Your task to perform on an android device: change the clock style Image 0: 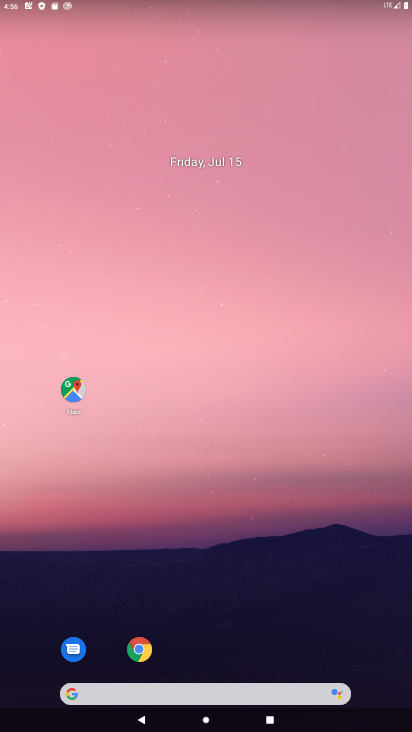
Step 0: drag from (259, 598) to (170, 147)
Your task to perform on an android device: change the clock style Image 1: 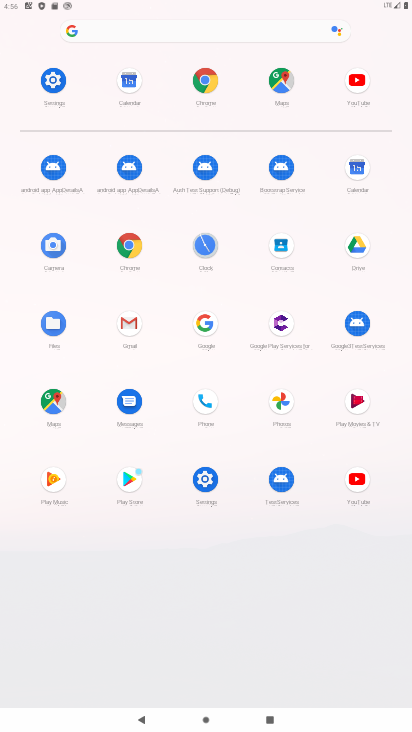
Step 1: click (202, 242)
Your task to perform on an android device: change the clock style Image 2: 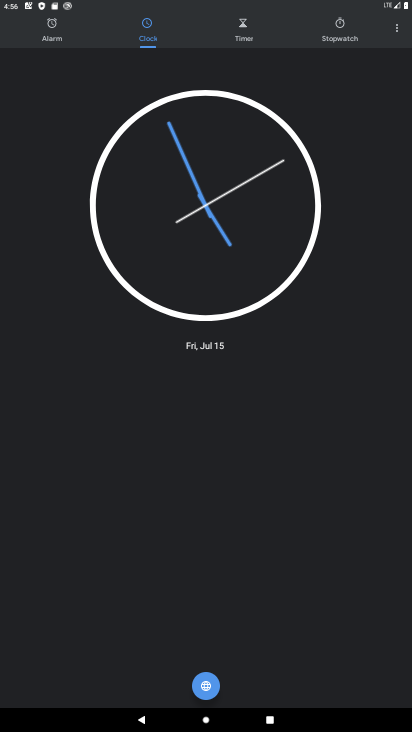
Step 2: click (391, 25)
Your task to perform on an android device: change the clock style Image 3: 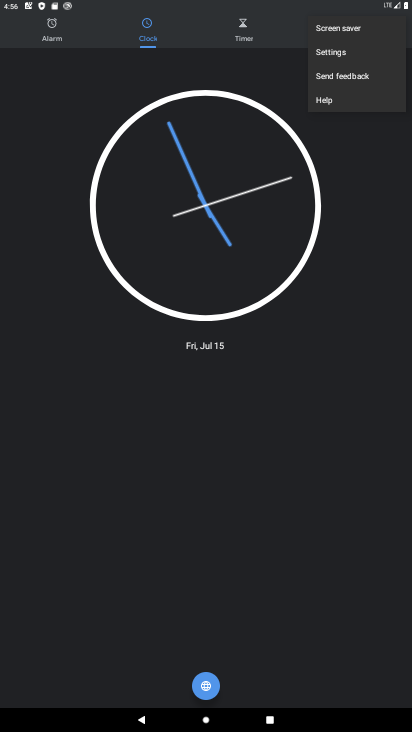
Step 3: click (340, 61)
Your task to perform on an android device: change the clock style Image 4: 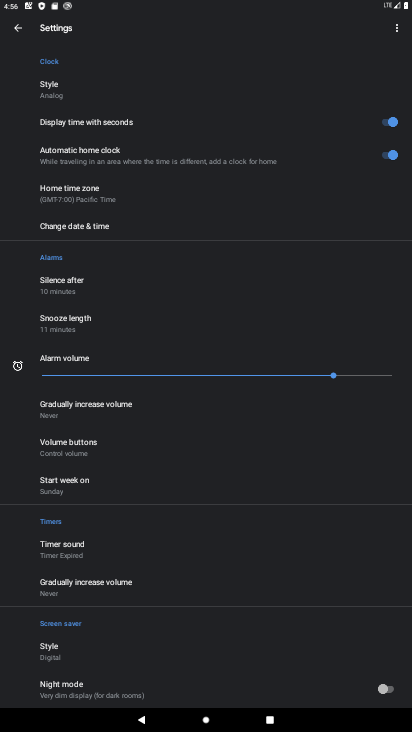
Step 4: click (64, 94)
Your task to perform on an android device: change the clock style Image 5: 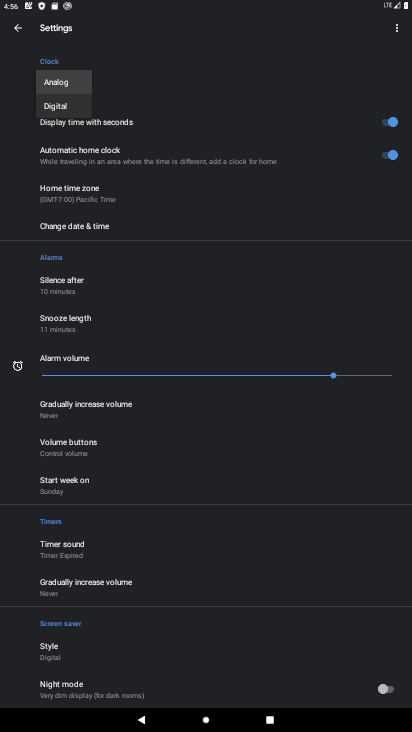
Step 5: click (67, 106)
Your task to perform on an android device: change the clock style Image 6: 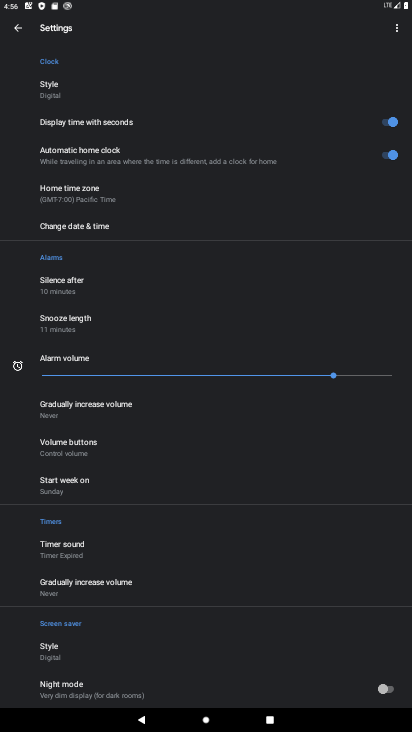
Step 6: task complete